Your task to perform on an android device: add a contact Image 0: 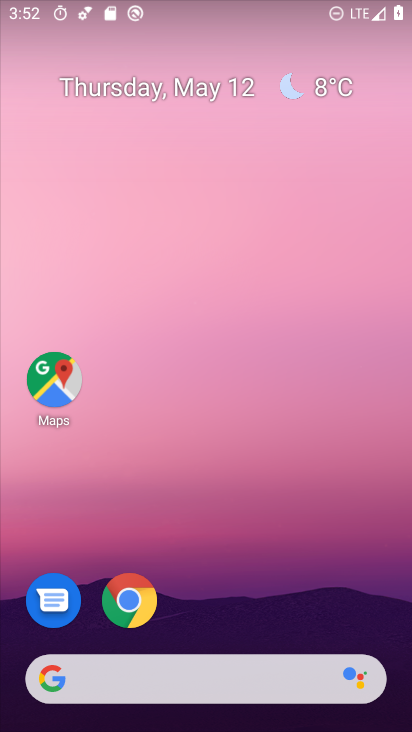
Step 0: drag from (176, 723) to (189, 246)
Your task to perform on an android device: add a contact Image 1: 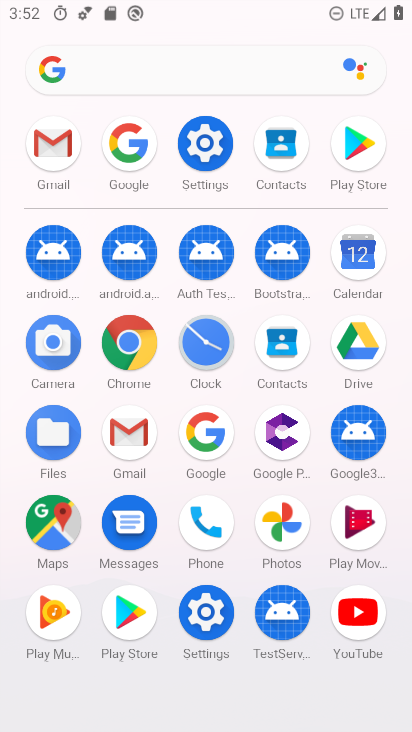
Step 1: click (283, 337)
Your task to perform on an android device: add a contact Image 2: 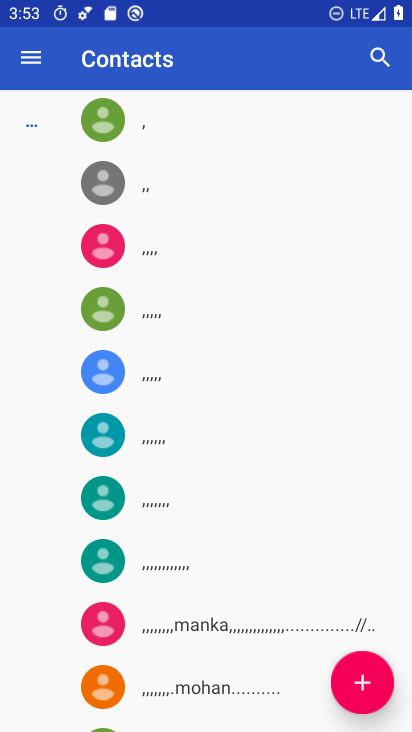
Step 2: click (364, 680)
Your task to perform on an android device: add a contact Image 3: 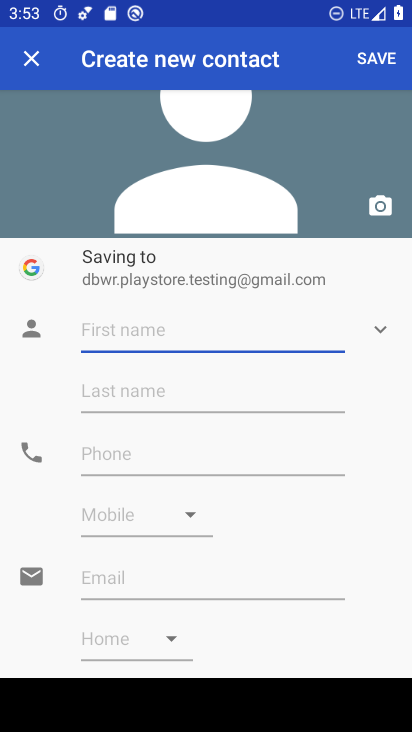
Step 3: type "bhgwa"
Your task to perform on an android device: add a contact Image 4: 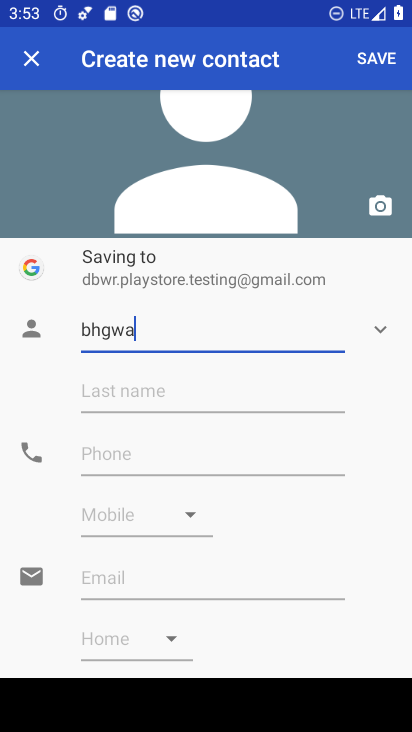
Step 4: click (114, 452)
Your task to perform on an android device: add a contact Image 5: 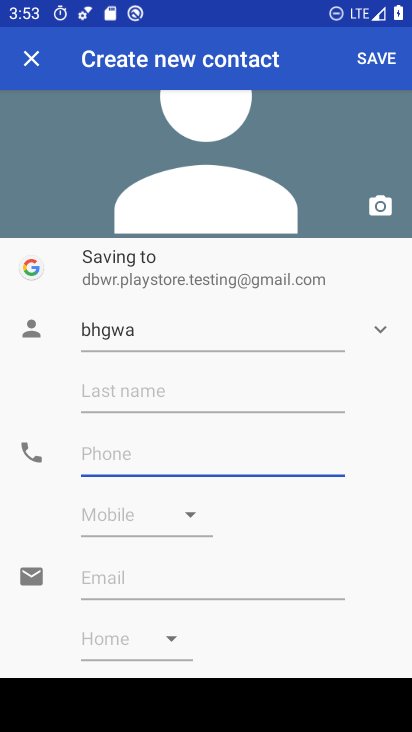
Step 5: type "98786"
Your task to perform on an android device: add a contact Image 6: 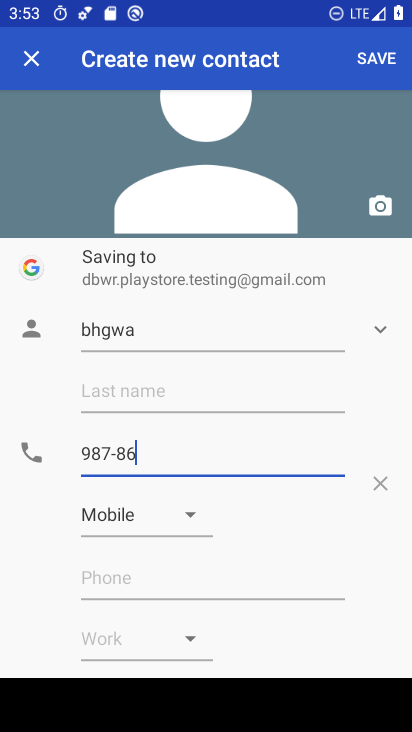
Step 6: click (367, 53)
Your task to perform on an android device: add a contact Image 7: 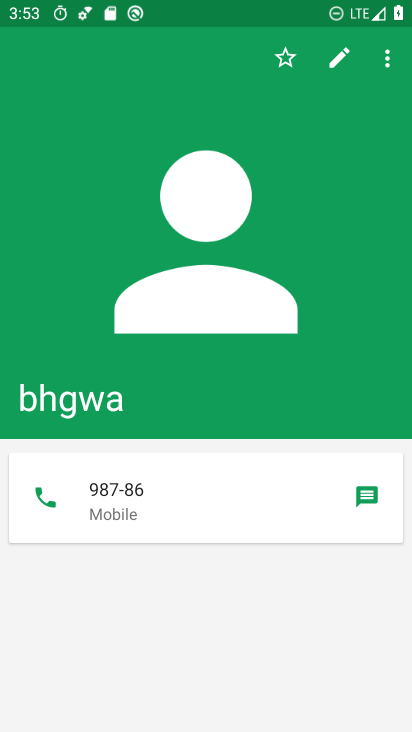
Step 7: task complete